Your task to perform on an android device: stop showing notifications on the lock screen Image 0: 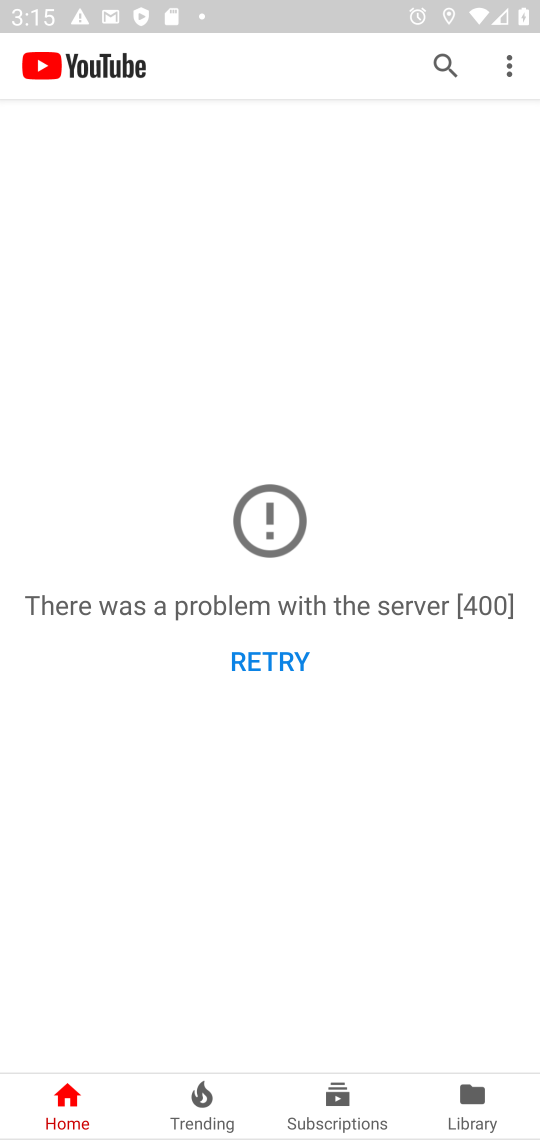
Step 0: press home button
Your task to perform on an android device: stop showing notifications on the lock screen Image 1: 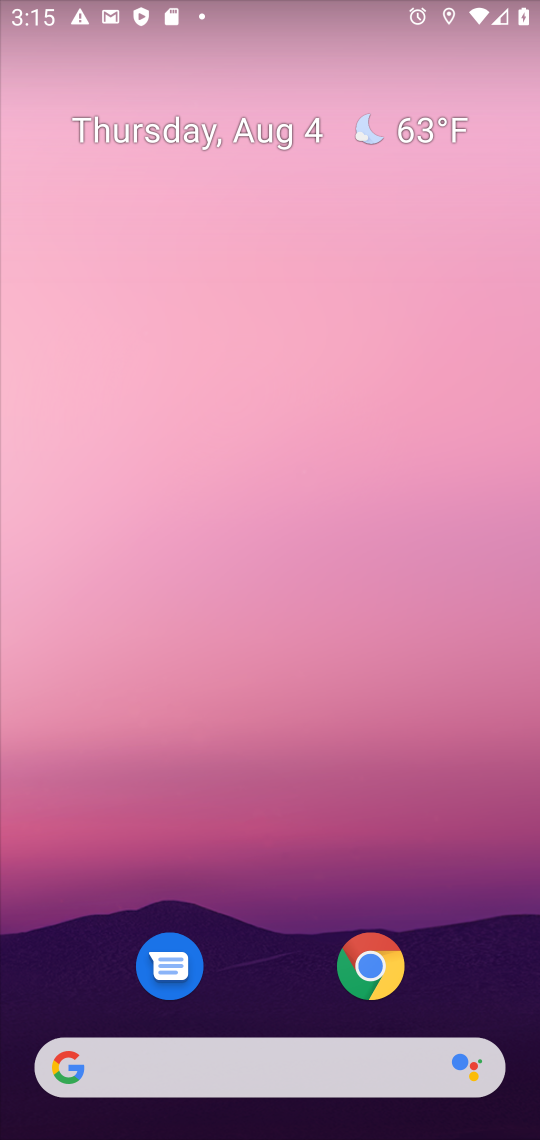
Step 1: drag from (281, 950) to (361, 215)
Your task to perform on an android device: stop showing notifications on the lock screen Image 2: 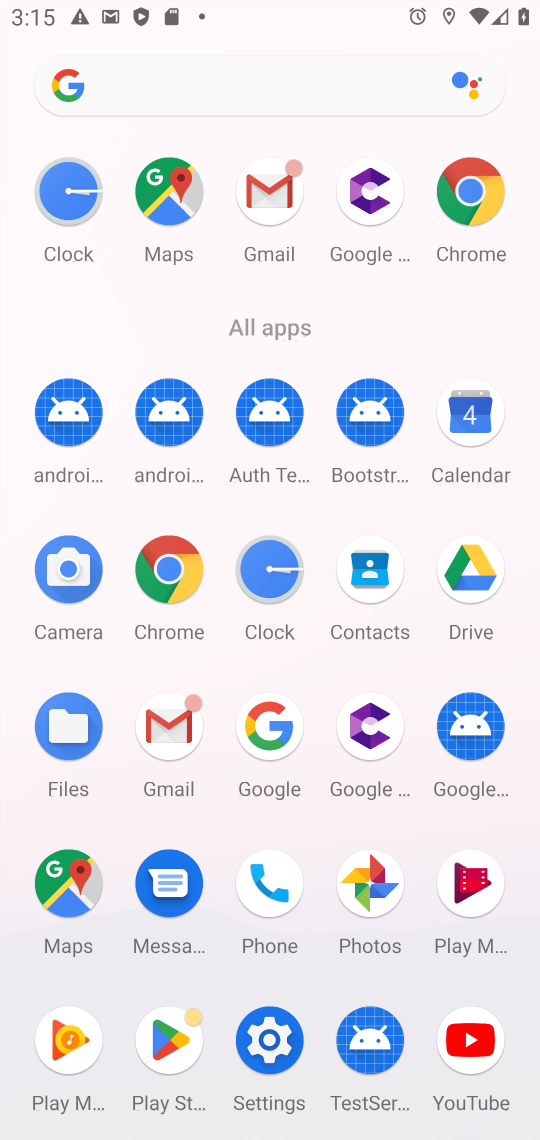
Step 2: click (273, 1060)
Your task to perform on an android device: stop showing notifications on the lock screen Image 3: 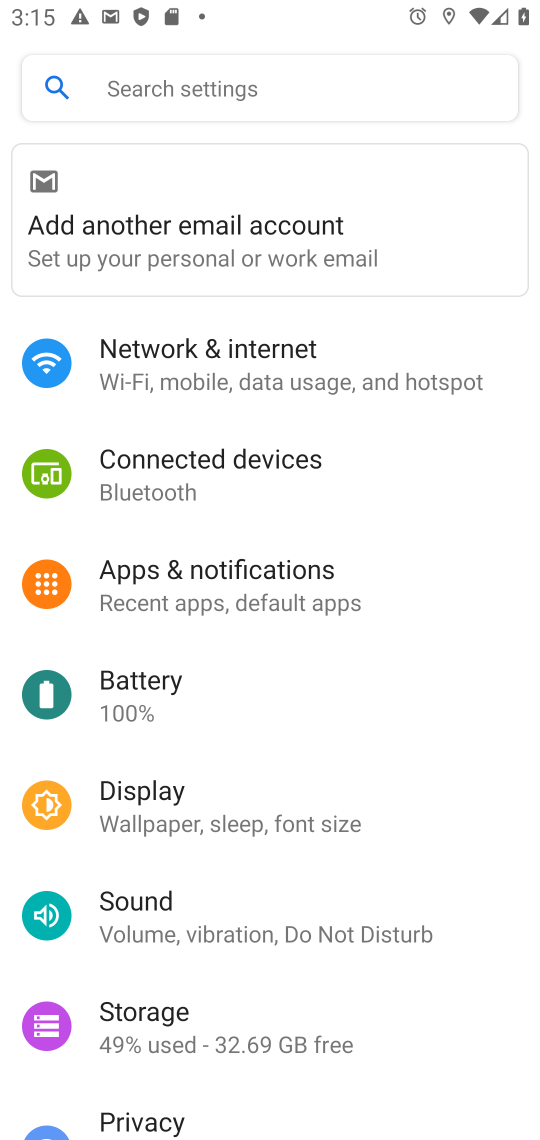
Step 3: click (194, 588)
Your task to perform on an android device: stop showing notifications on the lock screen Image 4: 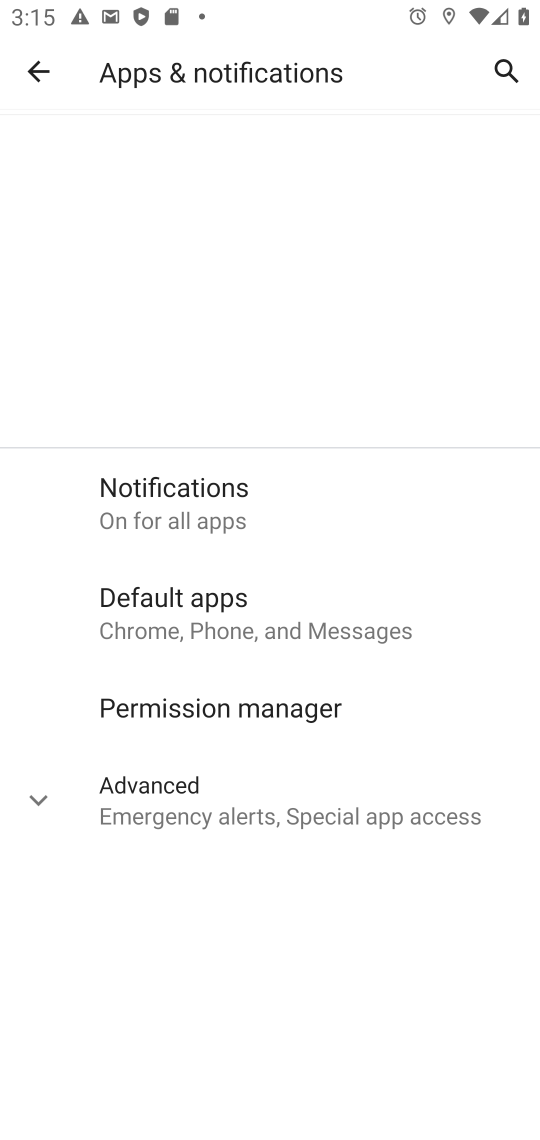
Step 4: click (156, 490)
Your task to perform on an android device: stop showing notifications on the lock screen Image 5: 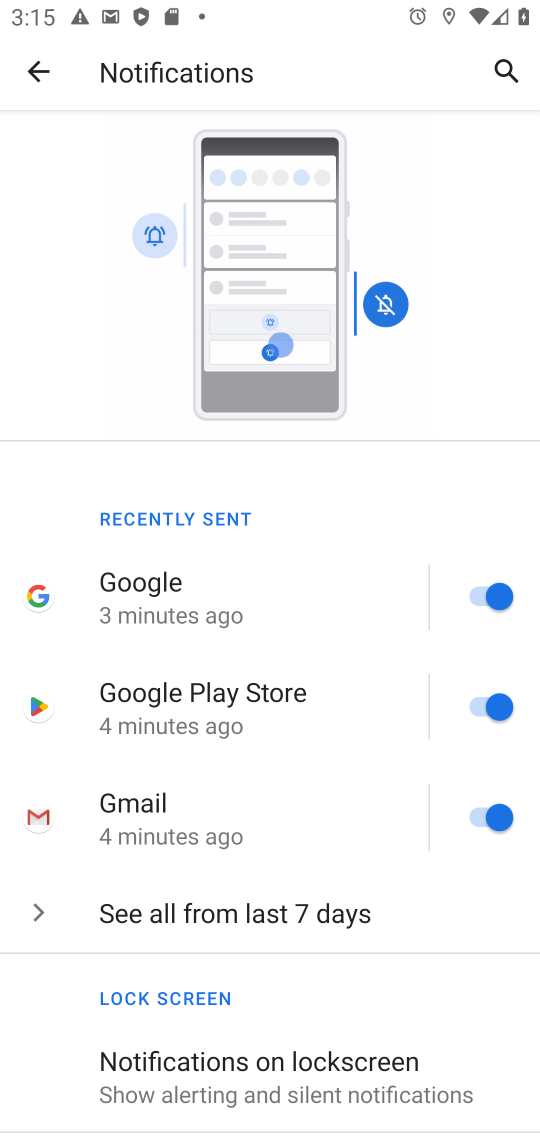
Step 5: click (243, 1065)
Your task to perform on an android device: stop showing notifications on the lock screen Image 6: 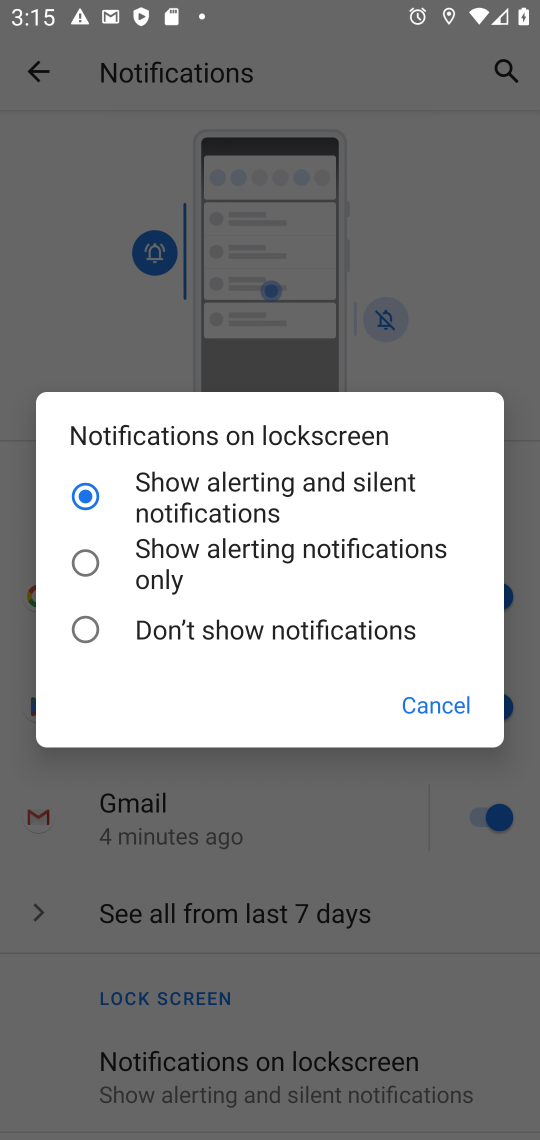
Step 6: click (88, 632)
Your task to perform on an android device: stop showing notifications on the lock screen Image 7: 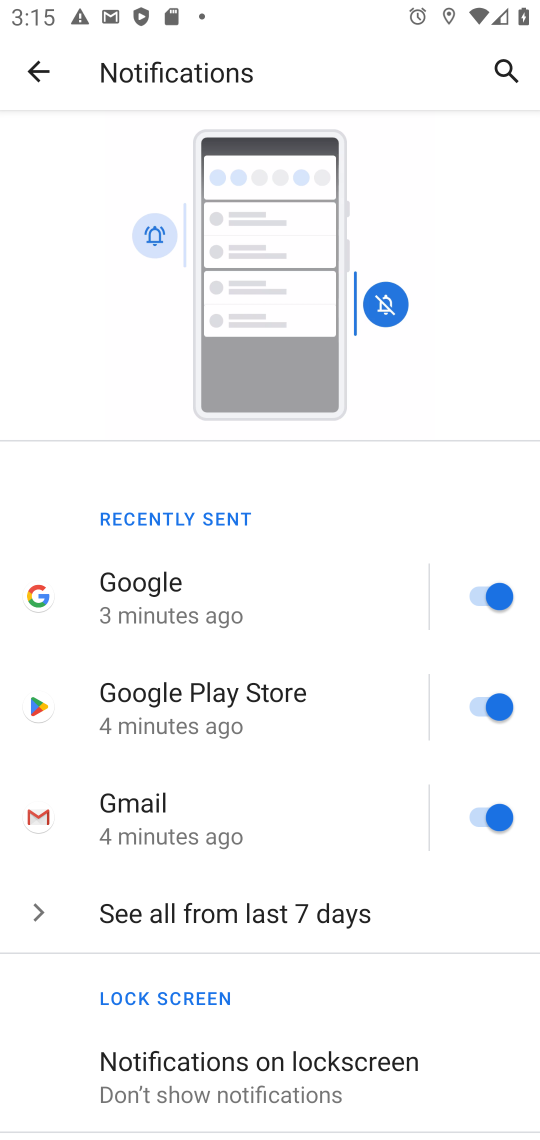
Step 7: task complete